Your task to perform on an android device: Open Chrome and go to settings Image 0: 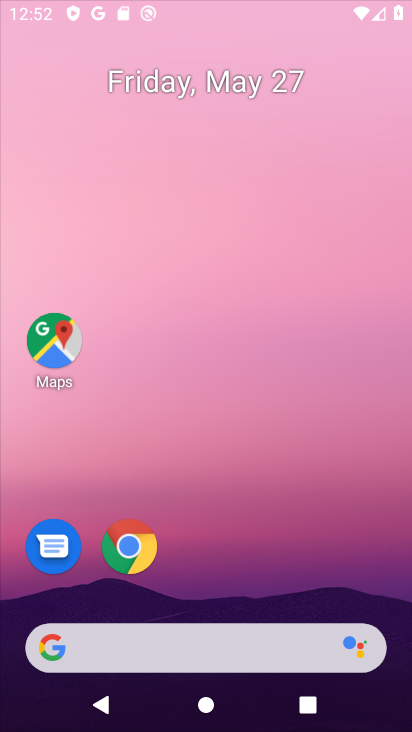
Step 0: click (37, 61)
Your task to perform on an android device: Open Chrome and go to settings Image 1: 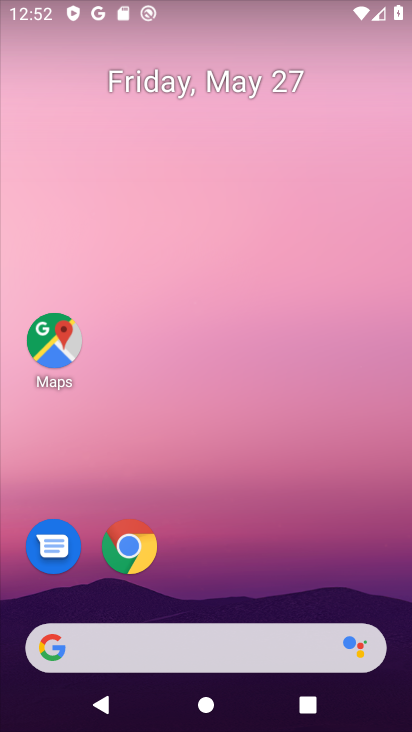
Step 1: drag from (251, 706) to (180, 265)
Your task to perform on an android device: Open Chrome and go to settings Image 2: 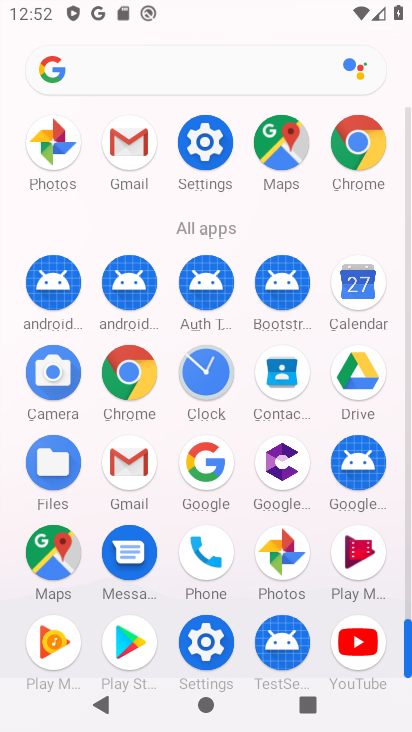
Step 2: click (201, 141)
Your task to perform on an android device: Open Chrome and go to settings Image 3: 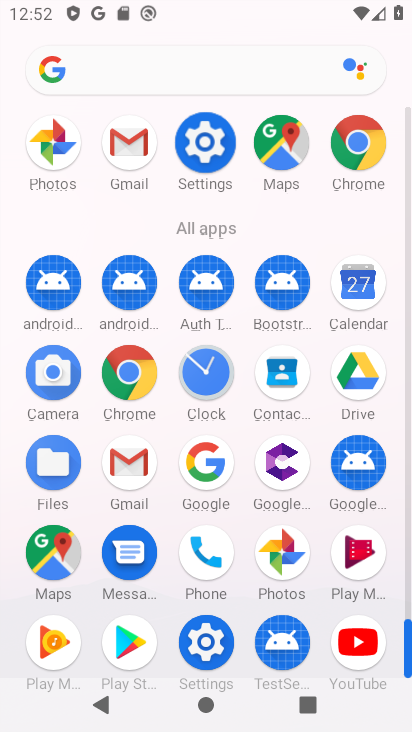
Step 3: click (203, 146)
Your task to perform on an android device: Open Chrome and go to settings Image 4: 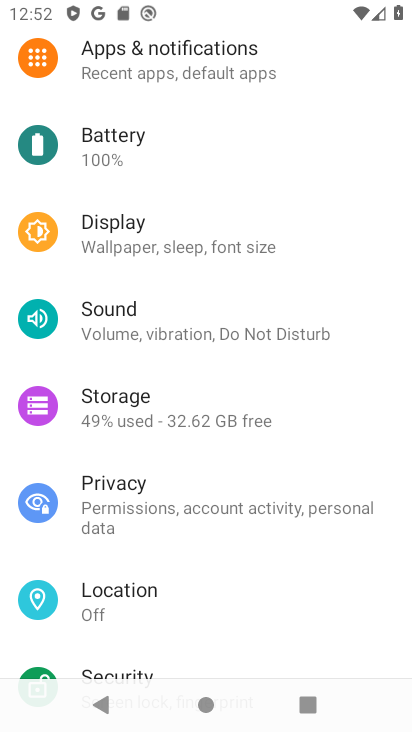
Step 4: press home button
Your task to perform on an android device: Open Chrome and go to settings Image 5: 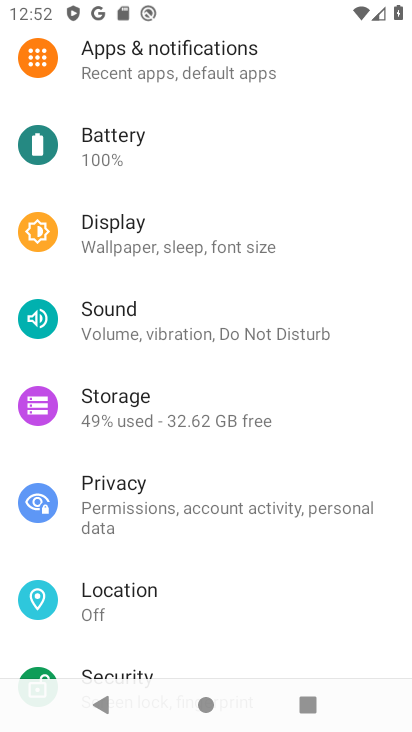
Step 5: press home button
Your task to perform on an android device: Open Chrome and go to settings Image 6: 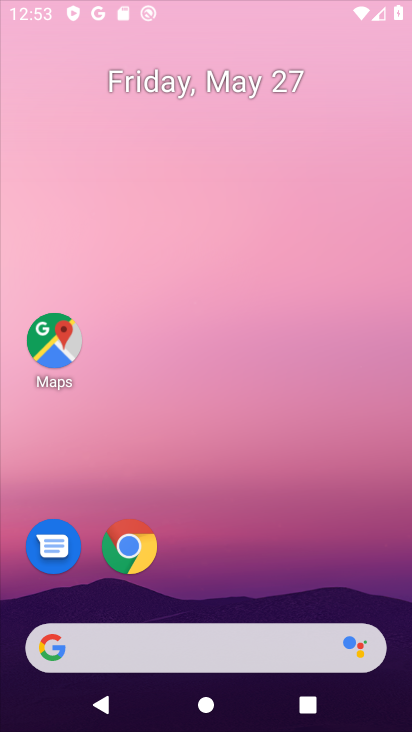
Step 6: press home button
Your task to perform on an android device: Open Chrome and go to settings Image 7: 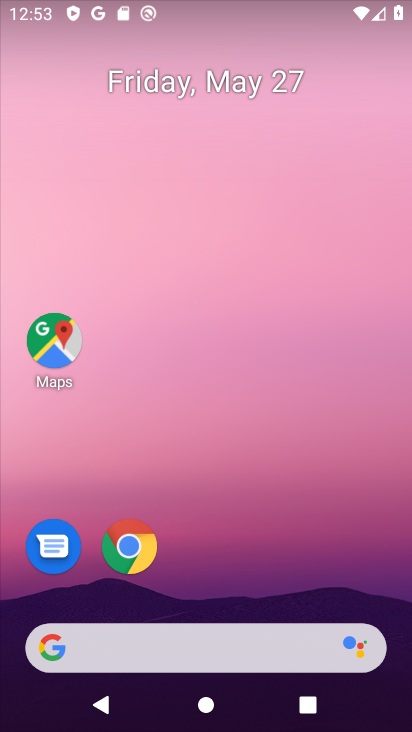
Step 7: drag from (264, 712) to (171, 179)
Your task to perform on an android device: Open Chrome and go to settings Image 8: 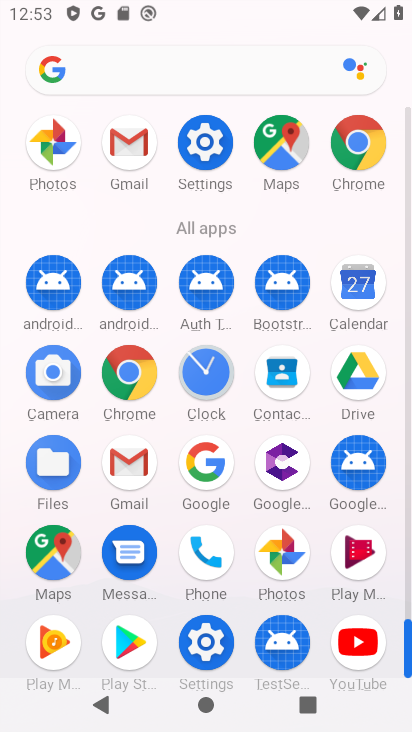
Step 8: click (361, 156)
Your task to perform on an android device: Open Chrome and go to settings Image 9: 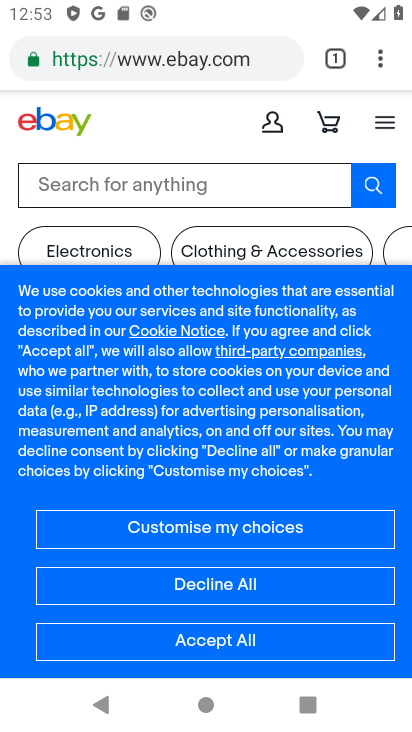
Step 9: click (379, 54)
Your task to perform on an android device: Open Chrome and go to settings Image 10: 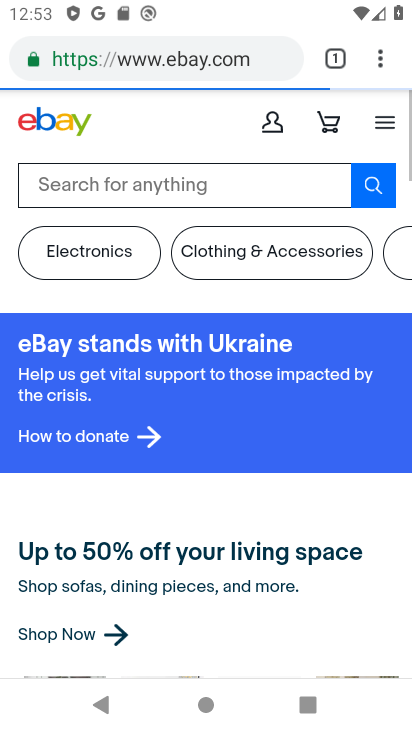
Step 10: drag from (379, 54) to (190, 568)
Your task to perform on an android device: Open Chrome and go to settings Image 11: 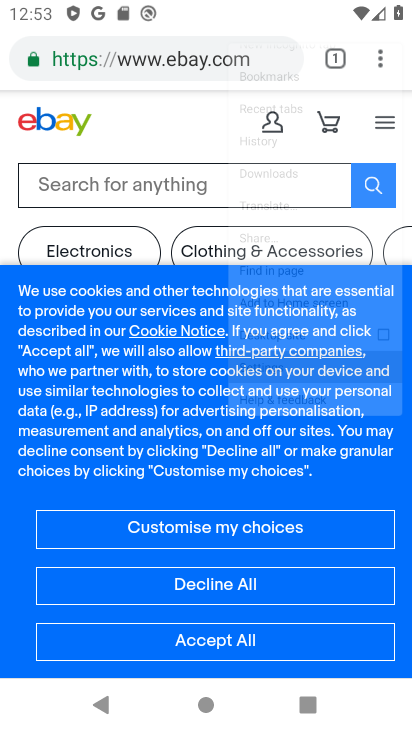
Step 11: click (203, 570)
Your task to perform on an android device: Open Chrome and go to settings Image 12: 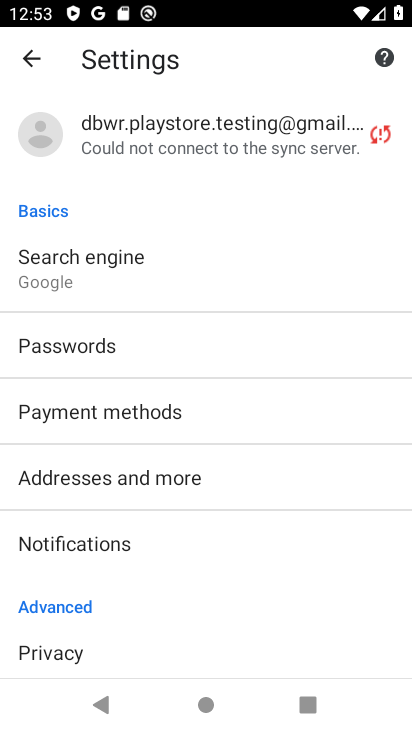
Step 12: drag from (176, 639) to (132, 210)
Your task to perform on an android device: Open Chrome and go to settings Image 13: 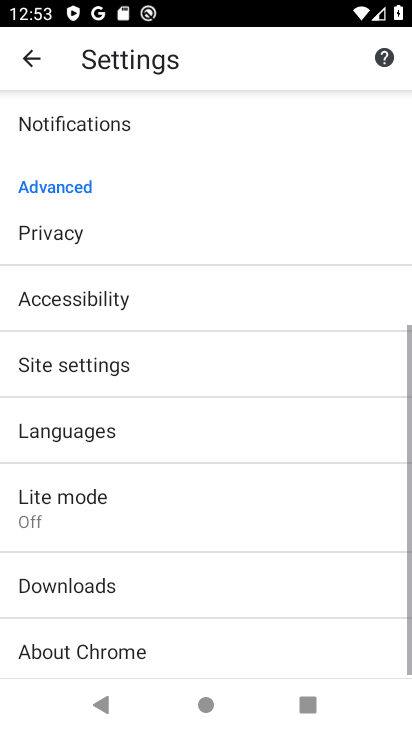
Step 13: drag from (126, 512) to (94, 245)
Your task to perform on an android device: Open Chrome and go to settings Image 14: 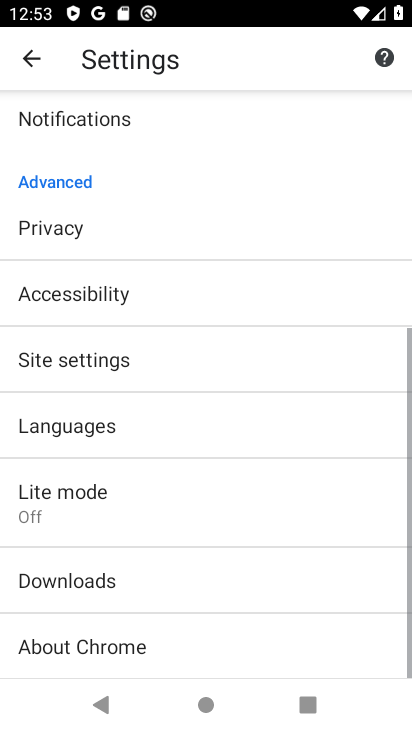
Step 14: drag from (91, 401) to (71, 195)
Your task to perform on an android device: Open Chrome and go to settings Image 15: 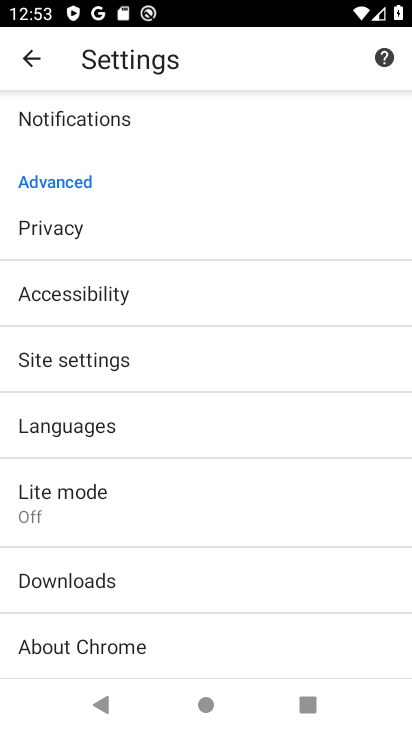
Step 15: click (58, 362)
Your task to perform on an android device: Open Chrome and go to settings Image 16: 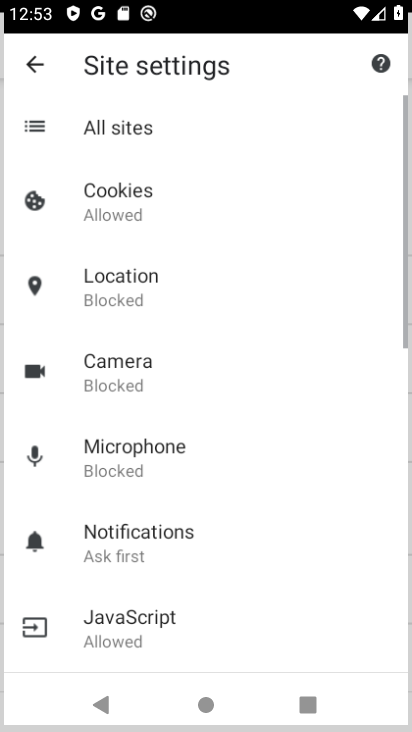
Step 16: click (55, 359)
Your task to perform on an android device: Open Chrome and go to settings Image 17: 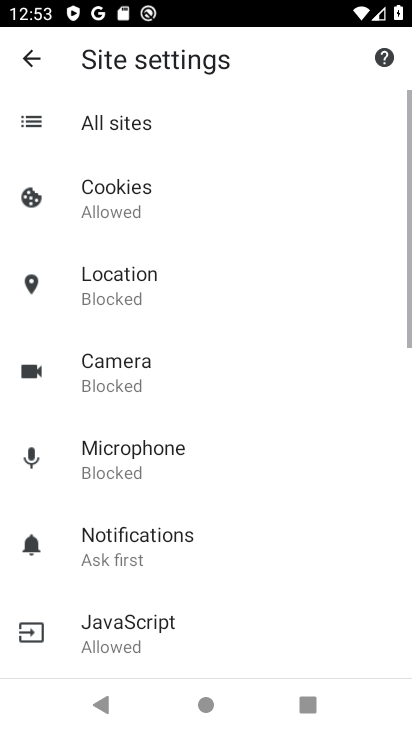
Step 17: click (55, 359)
Your task to perform on an android device: Open Chrome and go to settings Image 18: 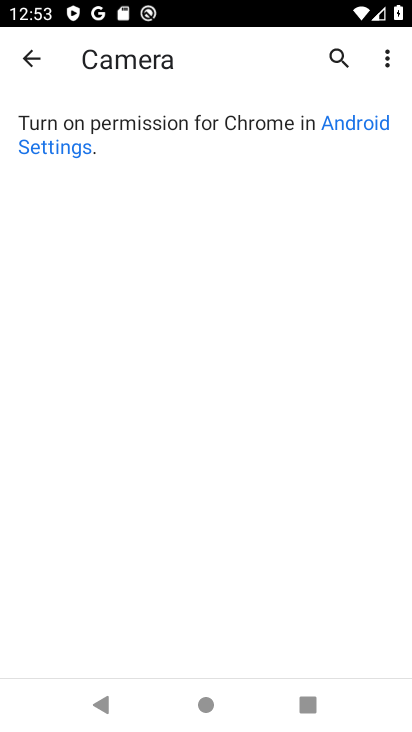
Step 18: click (58, 55)
Your task to perform on an android device: Open Chrome and go to settings Image 19: 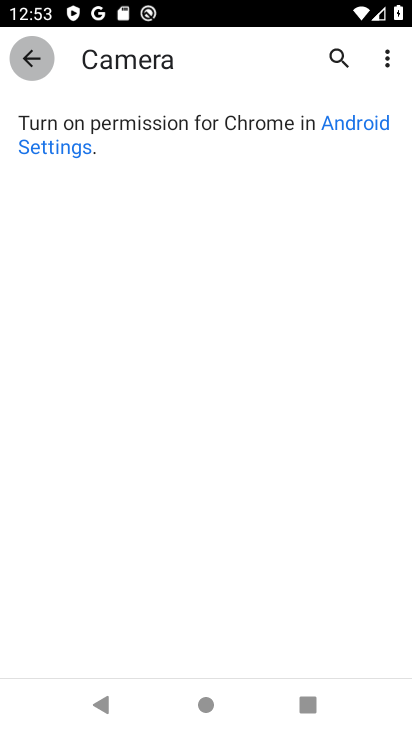
Step 19: click (29, 58)
Your task to perform on an android device: Open Chrome and go to settings Image 20: 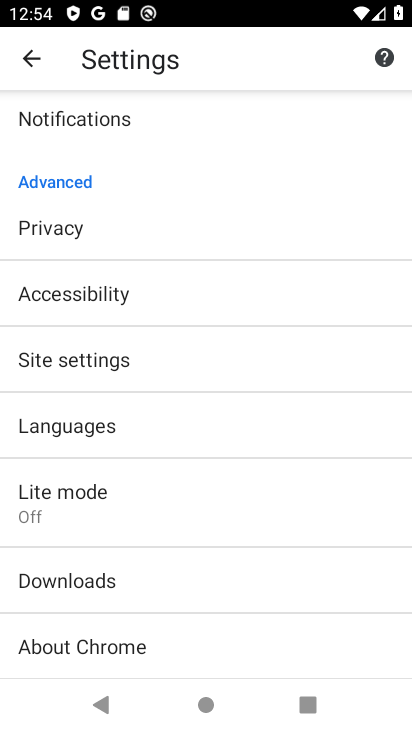
Step 20: task complete